Your task to perform on an android device: clear history in the chrome app Image 0: 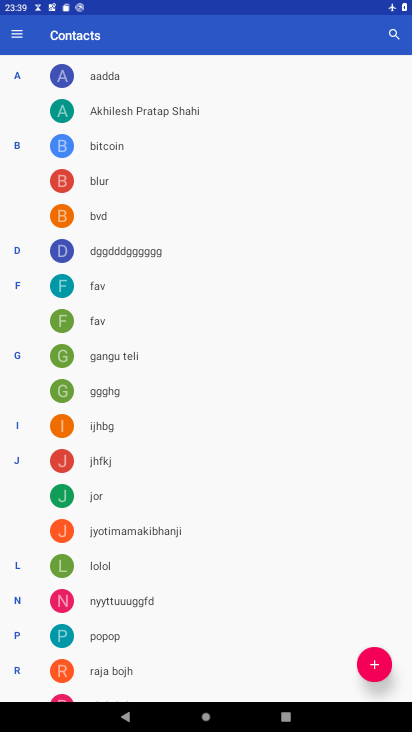
Step 0: press home button
Your task to perform on an android device: clear history in the chrome app Image 1: 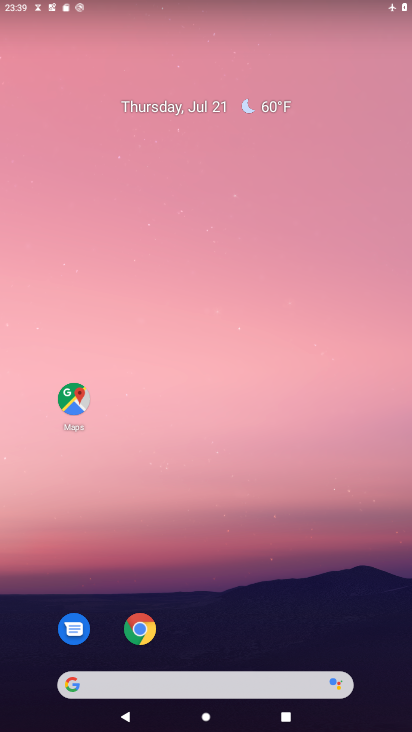
Step 1: drag from (197, 627) to (217, 245)
Your task to perform on an android device: clear history in the chrome app Image 2: 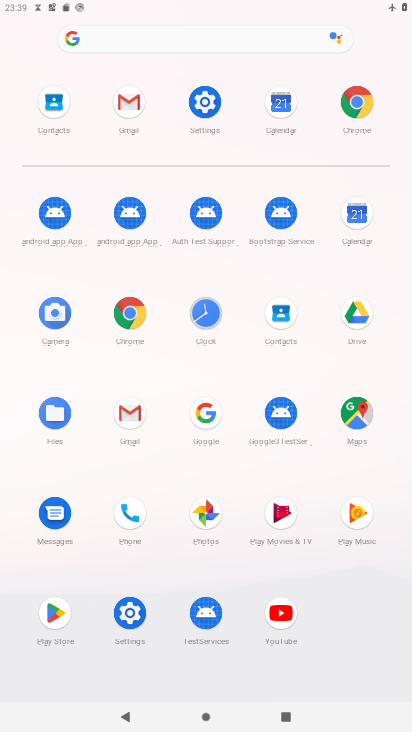
Step 2: click (349, 97)
Your task to perform on an android device: clear history in the chrome app Image 3: 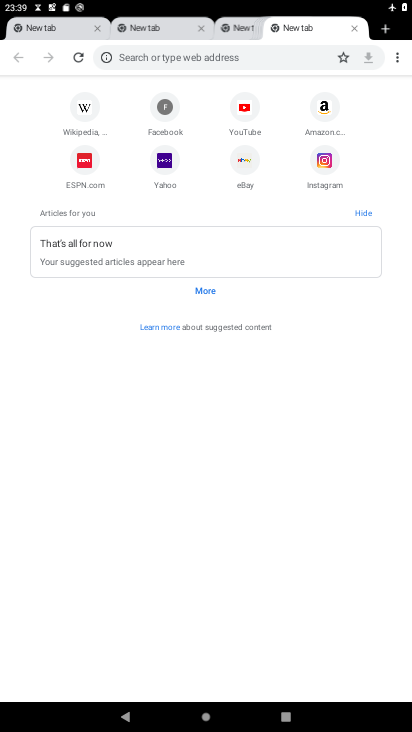
Step 3: click (400, 51)
Your task to perform on an android device: clear history in the chrome app Image 4: 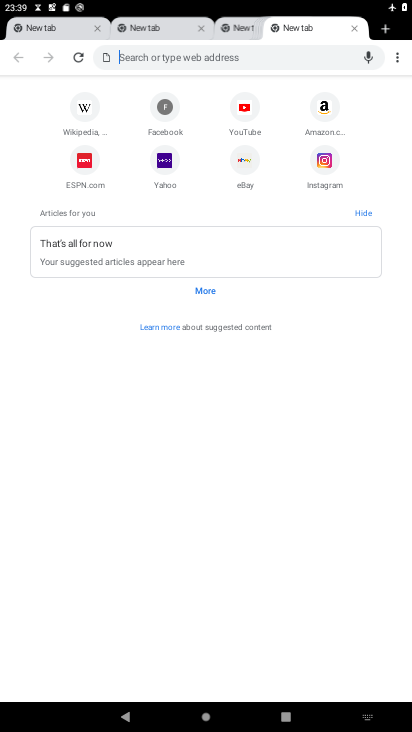
Step 4: click (400, 51)
Your task to perform on an android device: clear history in the chrome app Image 5: 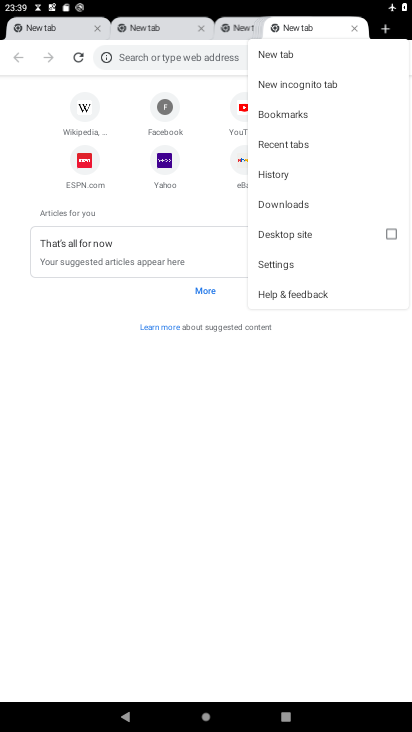
Step 5: click (293, 166)
Your task to perform on an android device: clear history in the chrome app Image 6: 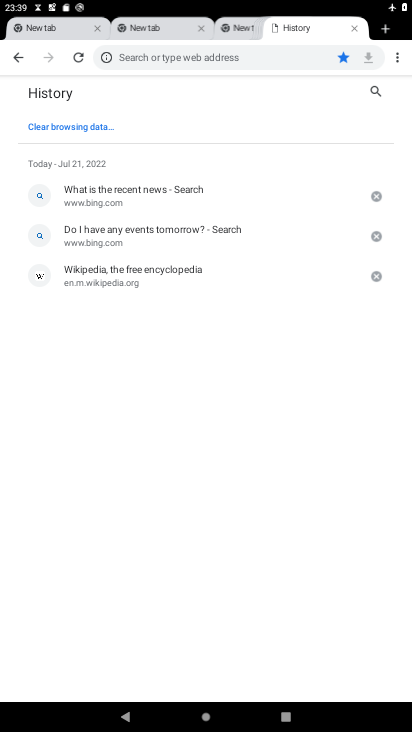
Step 6: click (51, 120)
Your task to perform on an android device: clear history in the chrome app Image 7: 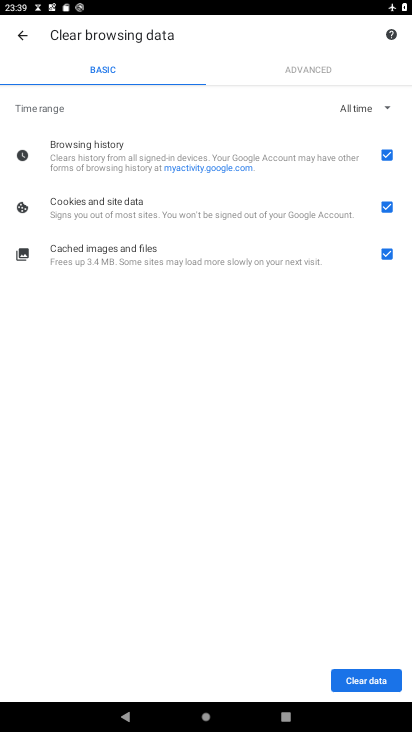
Step 7: click (375, 679)
Your task to perform on an android device: clear history in the chrome app Image 8: 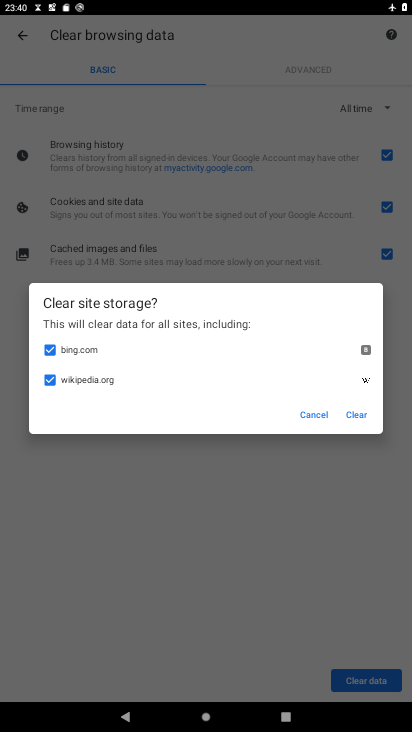
Step 8: click (350, 418)
Your task to perform on an android device: clear history in the chrome app Image 9: 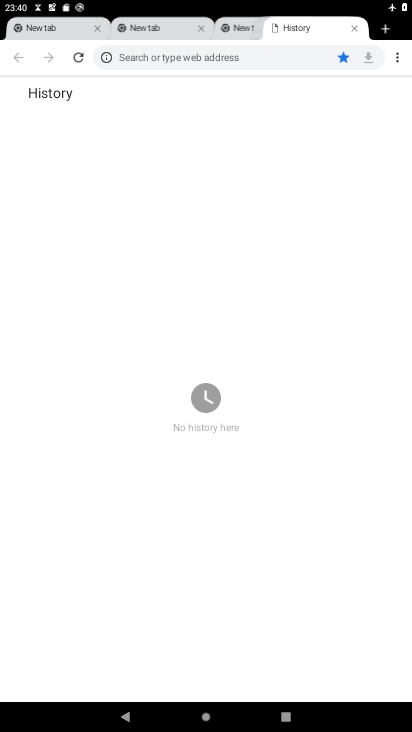
Step 9: task complete